Your task to perform on an android device: turn smart compose on in the gmail app Image 0: 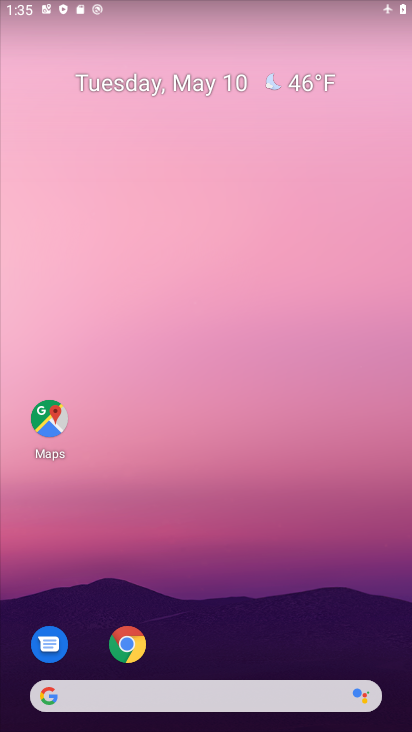
Step 0: drag from (275, 639) to (276, 257)
Your task to perform on an android device: turn smart compose on in the gmail app Image 1: 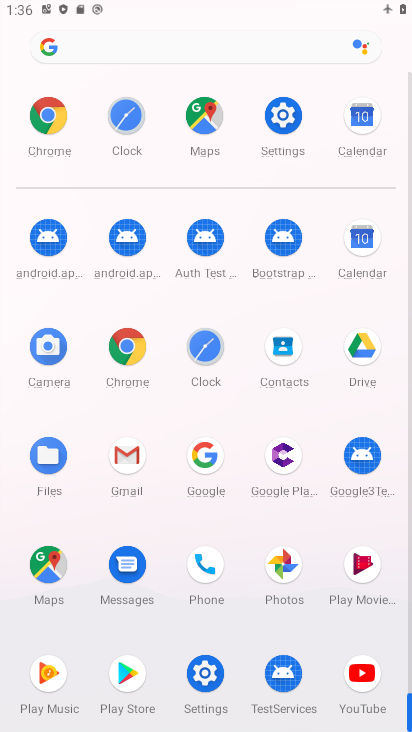
Step 1: click (143, 462)
Your task to perform on an android device: turn smart compose on in the gmail app Image 2: 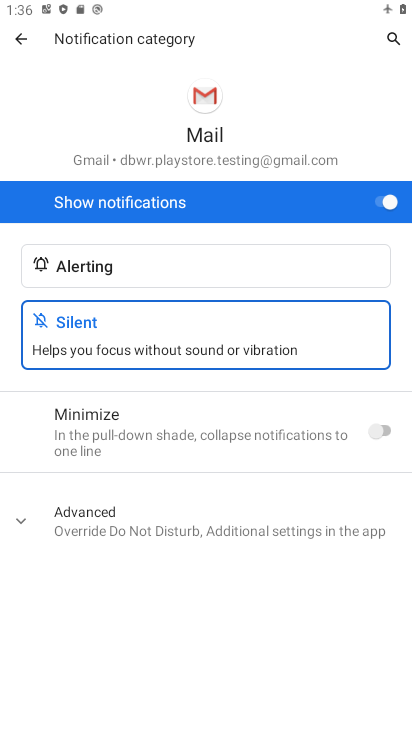
Step 2: task complete